Your task to perform on an android device: Go to network settings Image 0: 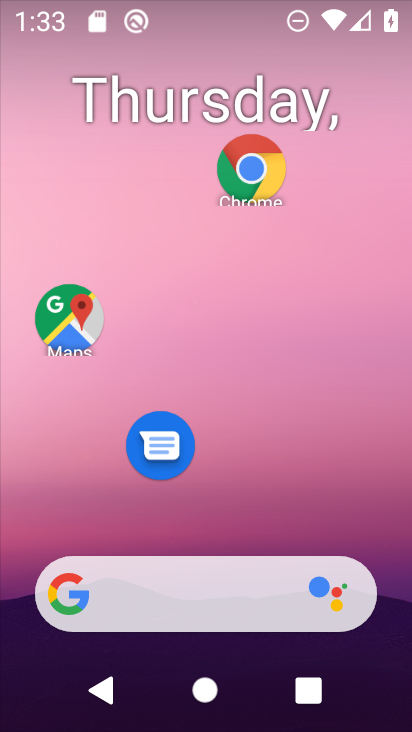
Step 0: drag from (261, 674) to (338, 90)
Your task to perform on an android device: Go to network settings Image 1: 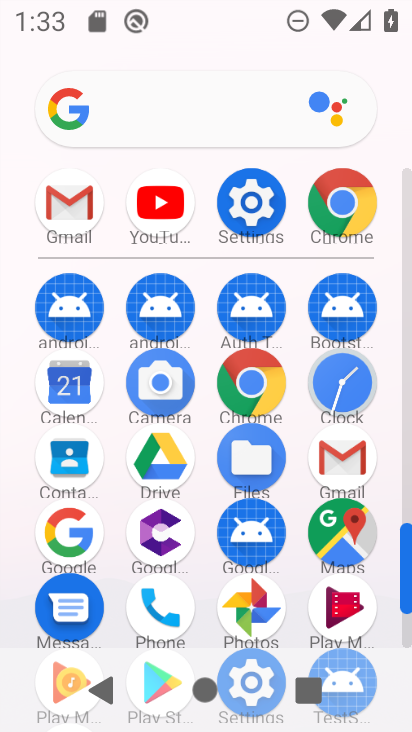
Step 1: click (249, 205)
Your task to perform on an android device: Go to network settings Image 2: 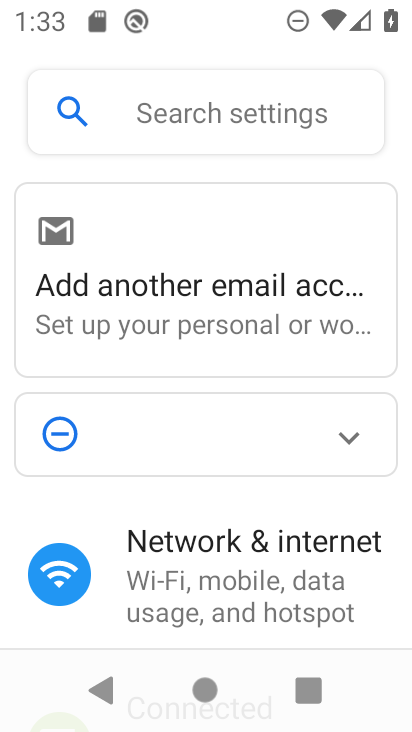
Step 2: click (217, 130)
Your task to perform on an android device: Go to network settings Image 3: 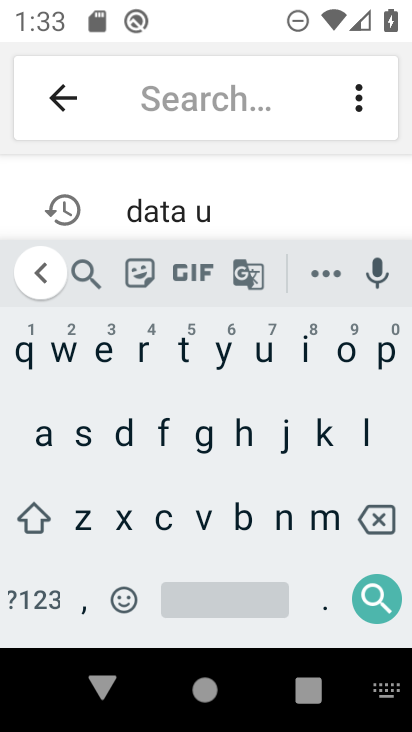
Step 3: click (283, 517)
Your task to perform on an android device: Go to network settings Image 4: 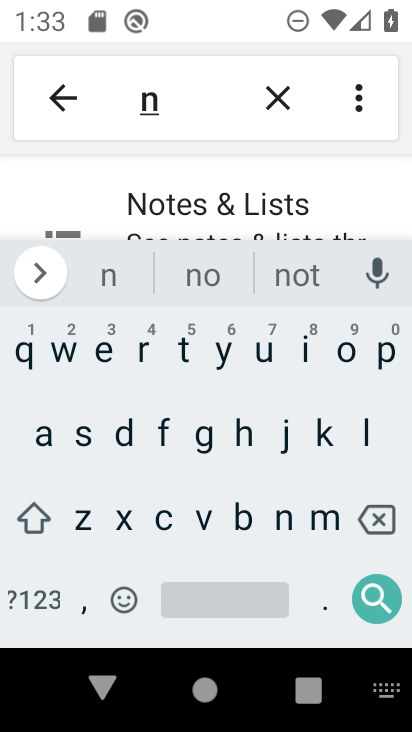
Step 4: click (104, 355)
Your task to perform on an android device: Go to network settings Image 5: 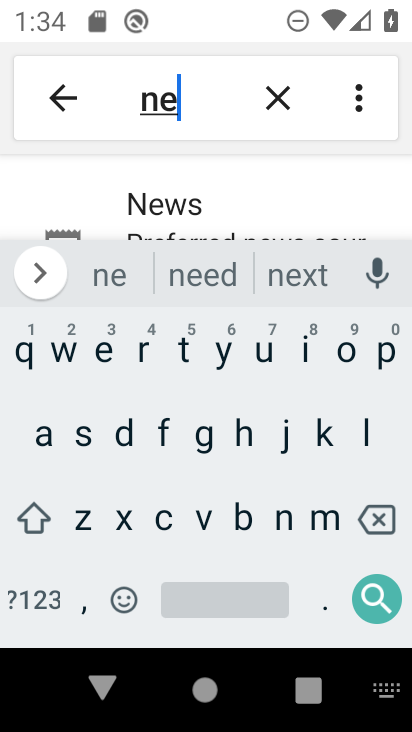
Step 5: click (180, 354)
Your task to perform on an android device: Go to network settings Image 6: 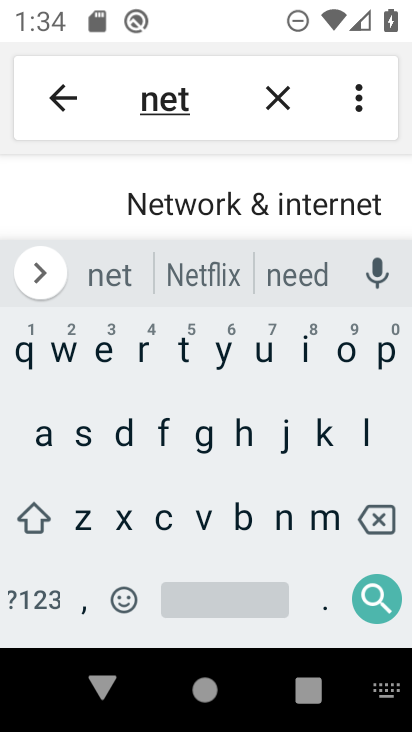
Step 6: click (227, 204)
Your task to perform on an android device: Go to network settings Image 7: 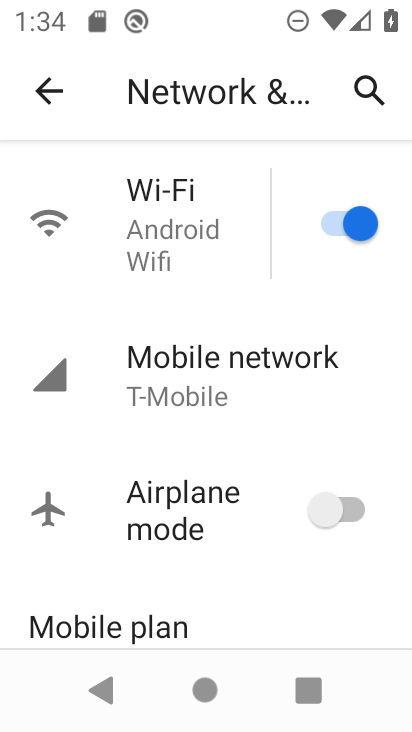
Step 7: task complete